Your task to perform on an android device: Open Google Chrome Image 0: 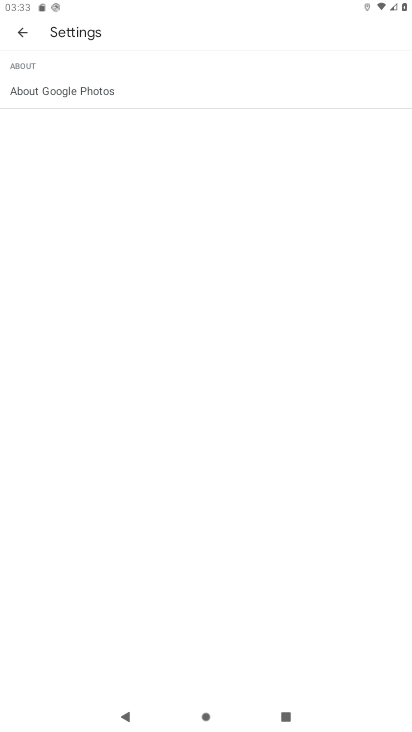
Step 0: press home button
Your task to perform on an android device: Open Google Chrome Image 1: 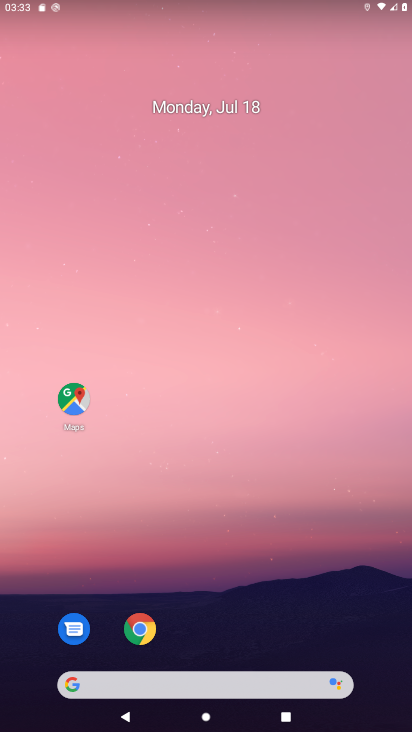
Step 1: drag from (341, 602) to (358, 89)
Your task to perform on an android device: Open Google Chrome Image 2: 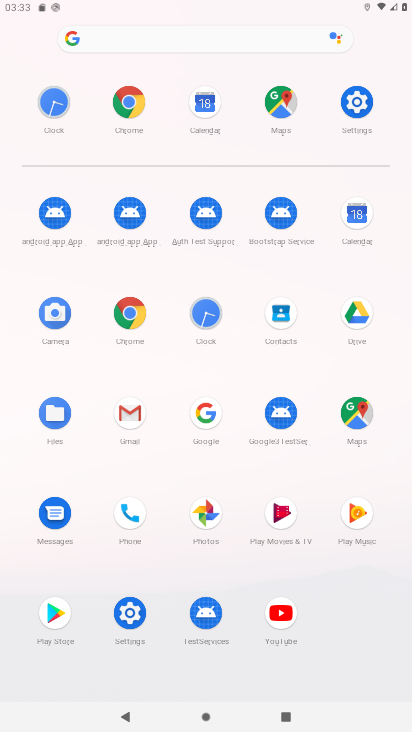
Step 2: click (142, 320)
Your task to perform on an android device: Open Google Chrome Image 3: 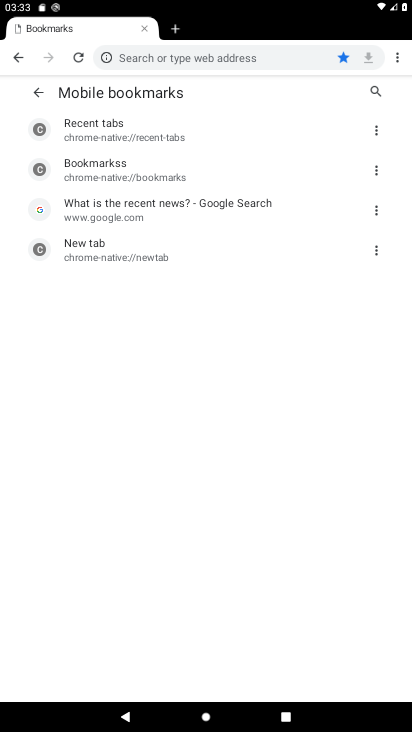
Step 3: task complete